Your task to perform on an android device: find which apps use the phone's location Image 0: 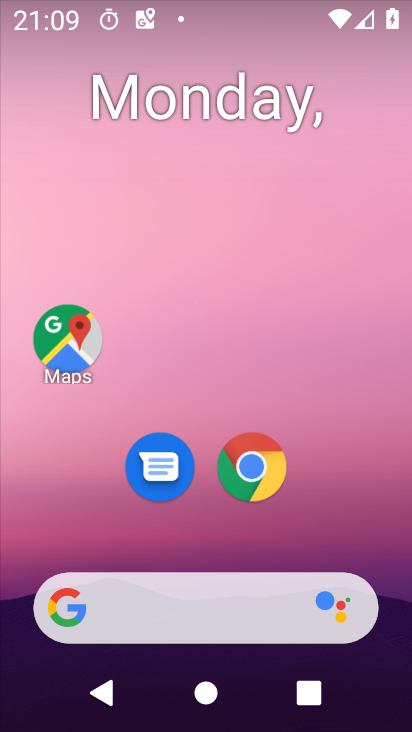
Step 0: drag from (216, 547) to (274, 60)
Your task to perform on an android device: find which apps use the phone's location Image 1: 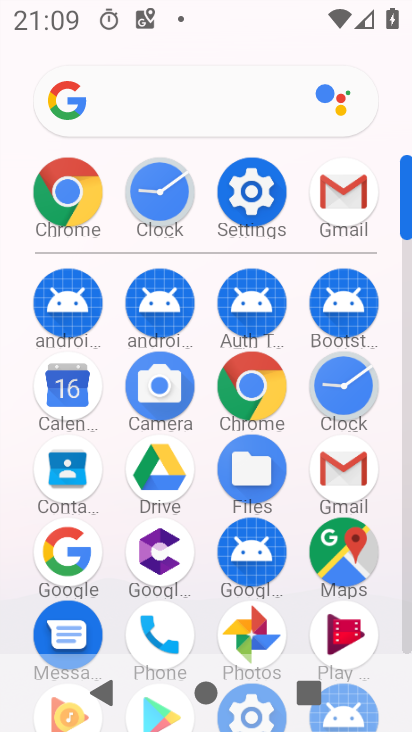
Step 1: click (253, 203)
Your task to perform on an android device: find which apps use the phone's location Image 2: 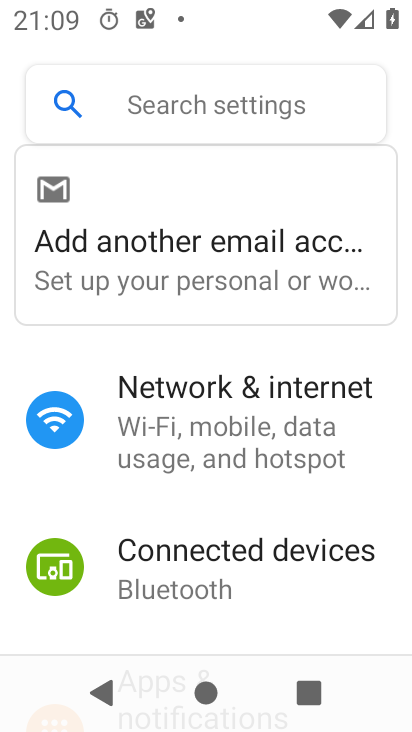
Step 2: drag from (206, 563) to (247, 37)
Your task to perform on an android device: find which apps use the phone's location Image 3: 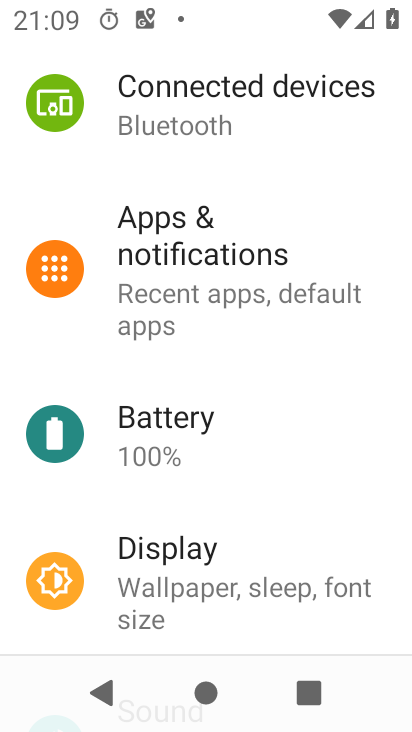
Step 3: drag from (208, 563) to (267, 99)
Your task to perform on an android device: find which apps use the phone's location Image 4: 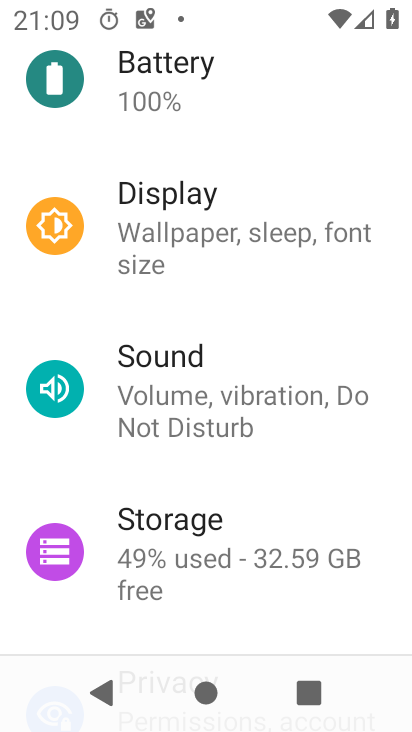
Step 4: drag from (225, 517) to (273, 130)
Your task to perform on an android device: find which apps use the phone's location Image 5: 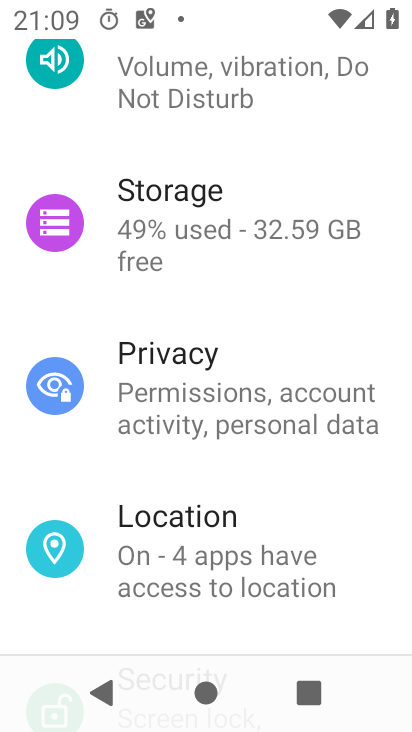
Step 5: click (225, 534)
Your task to perform on an android device: find which apps use the phone's location Image 6: 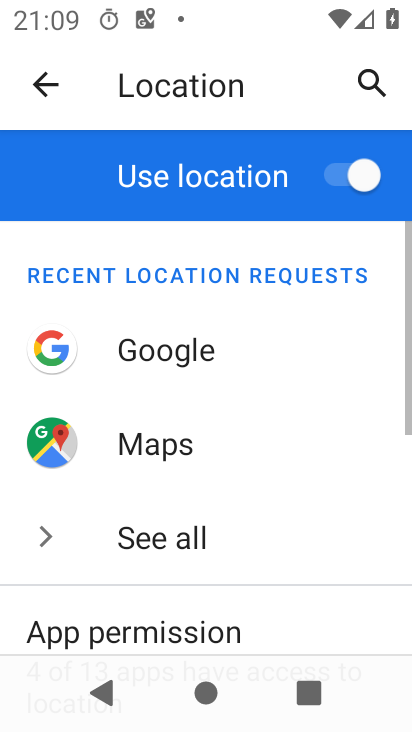
Step 6: drag from (271, 517) to (307, 250)
Your task to perform on an android device: find which apps use the phone's location Image 7: 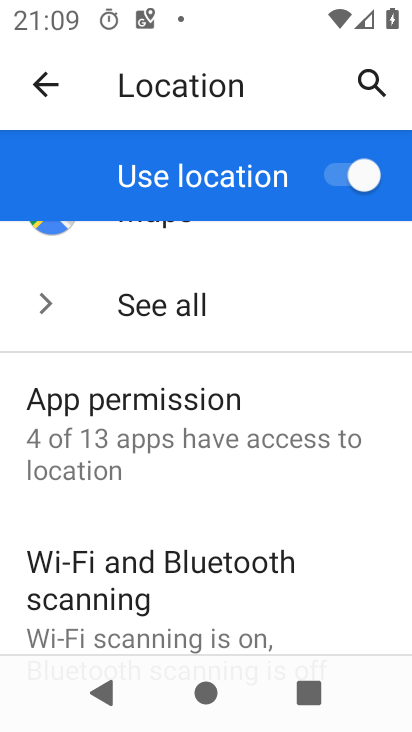
Step 7: click (259, 459)
Your task to perform on an android device: find which apps use the phone's location Image 8: 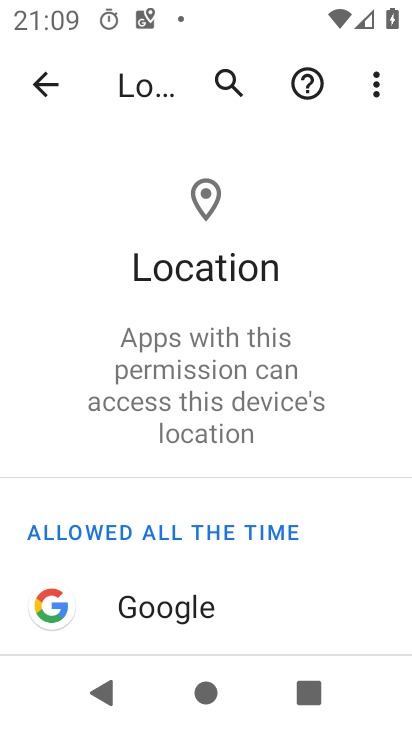
Step 8: task complete